Your task to perform on an android device: turn off smart reply in the gmail app Image 0: 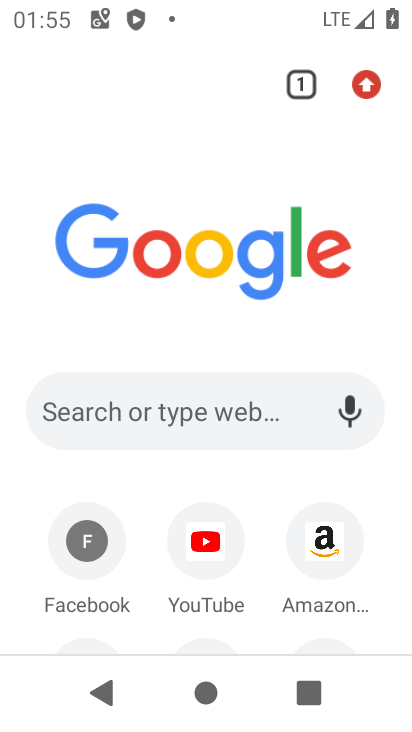
Step 0: press home button
Your task to perform on an android device: turn off smart reply in the gmail app Image 1: 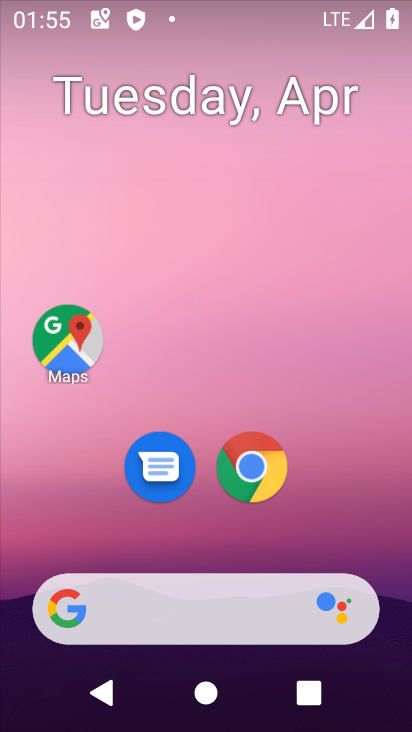
Step 1: drag from (390, 556) to (372, 265)
Your task to perform on an android device: turn off smart reply in the gmail app Image 2: 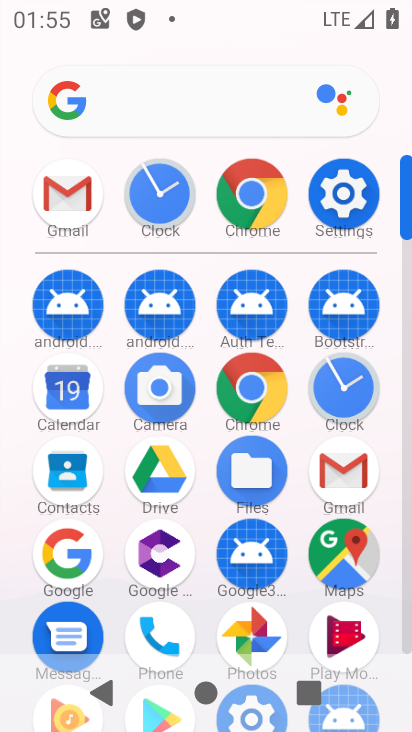
Step 2: click (349, 477)
Your task to perform on an android device: turn off smart reply in the gmail app Image 3: 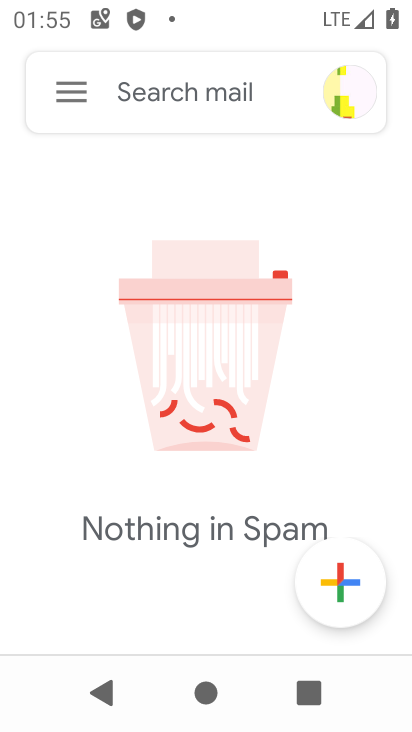
Step 3: click (69, 87)
Your task to perform on an android device: turn off smart reply in the gmail app Image 4: 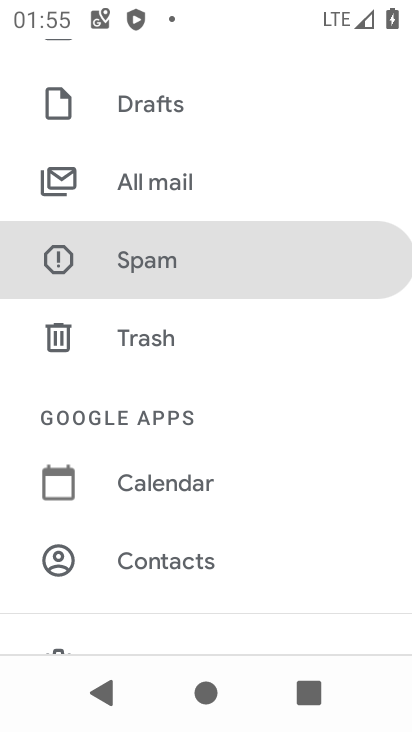
Step 4: drag from (292, 537) to (318, 229)
Your task to perform on an android device: turn off smart reply in the gmail app Image 5: 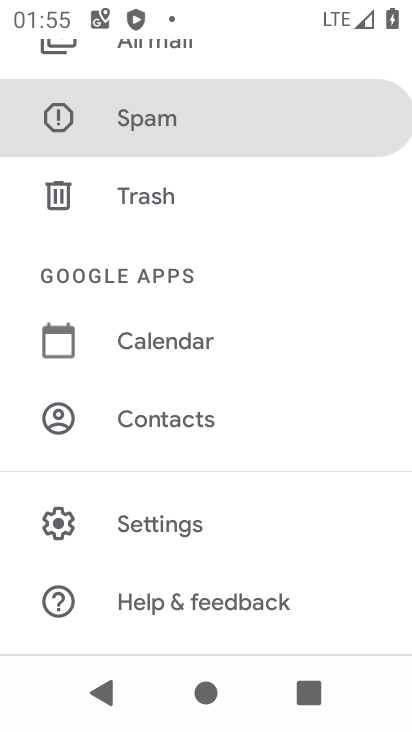
Step 5: click (186, 531)
Your task to perform on an android device: turn off smart reply in the gmail app Image 6: 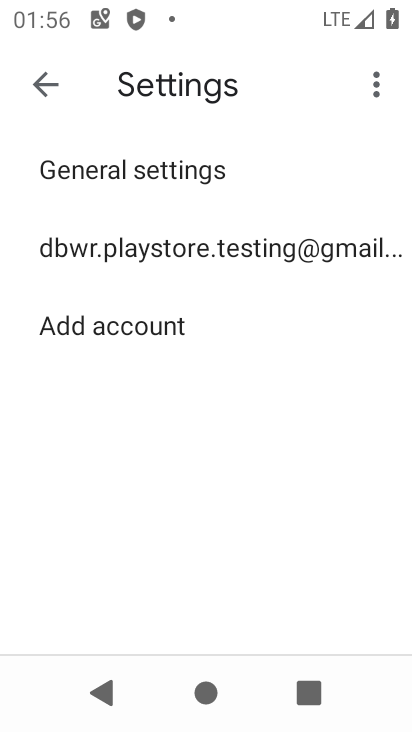
Step 6: click (219, 246)
Your task to perform on an android device: turn off smart reply in the gmail app Image 7: 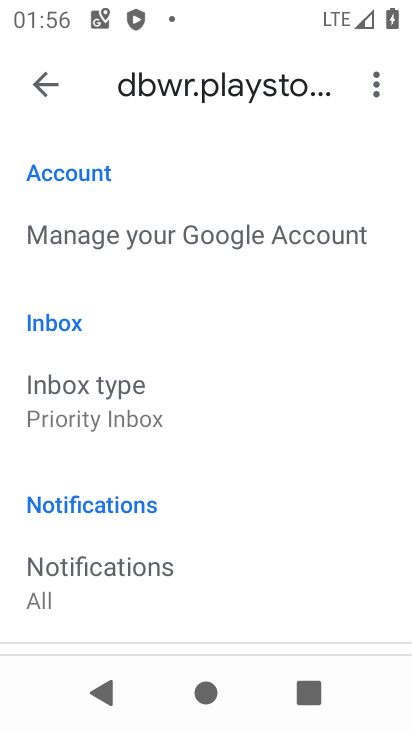
Step 7: drag from (316, 519) to (314, 332)
Your task to perform on an android device: turn off smart reply in the gmail app Image 8: 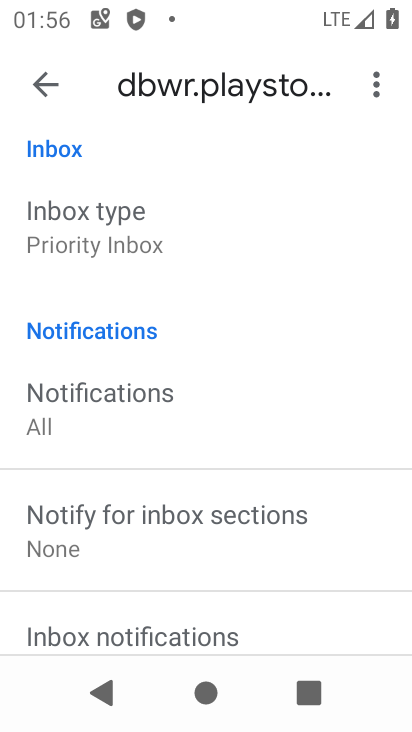
Step 8: drag from (332, 527) to (316, 338)
Your task to perform on an android device: turn off smart reply in the gmail app Image 9: 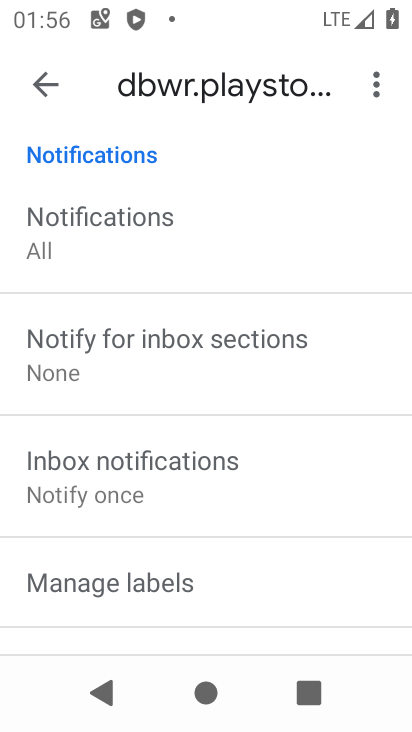
Step 9: drag from (319, 537) to (311, 326)
Your task to perform on an android device: turn off smart reply in the gmail app Image 10: 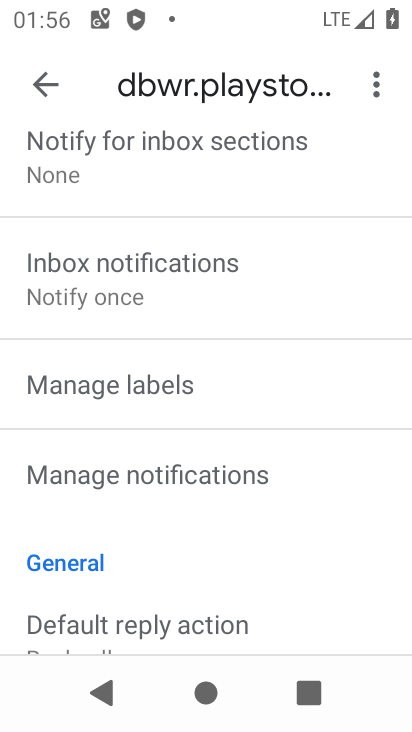
Step 10: drag from (345, 563) to (340, 276)
Your task to perform on an android device: turn off smart reply in the gmail app Image 11: 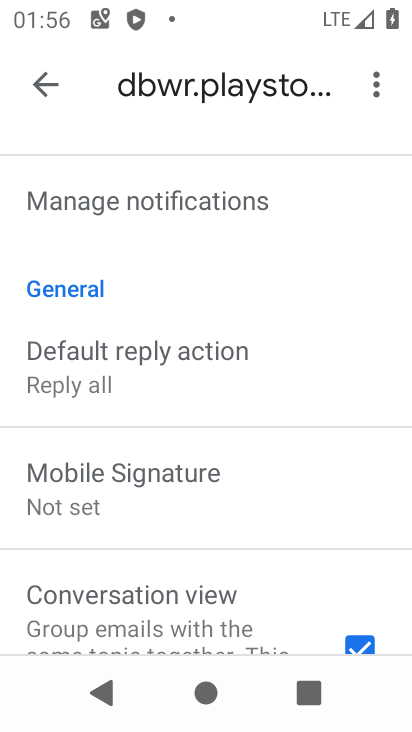
Step 11: drag from (318, 542) to (323, 301)
Your task to perform on an android device: turn off smart reply in the gmail app Image 12: 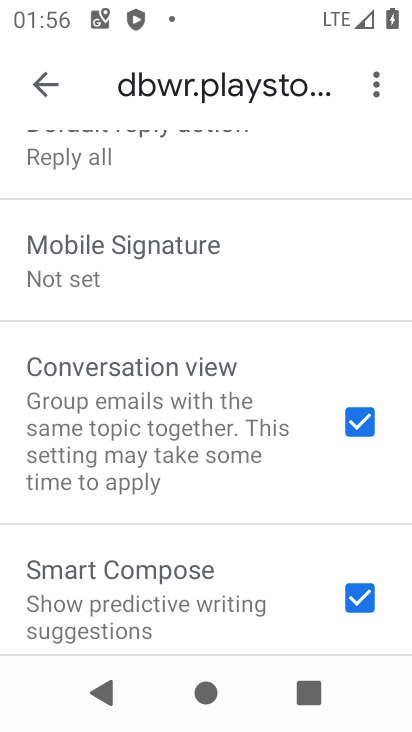
Step 12: drag from (294, 553) to (293, 315)
Your task to perform on an android device: turn off smart reply in the gmail app Image 13: 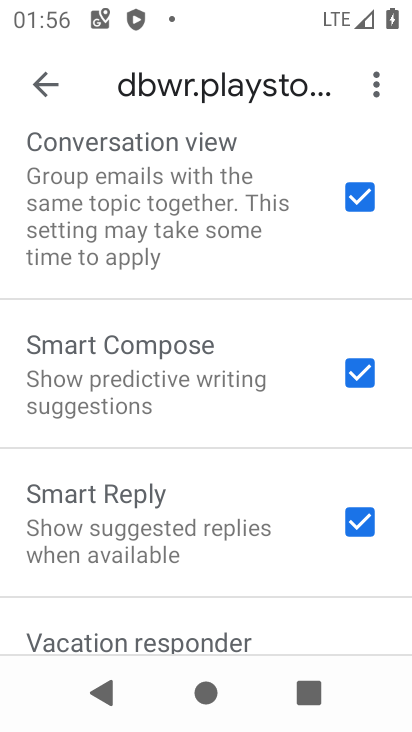
Step 13: click (357, 524)
Your task to perform on an android device: turn off smart reply in the gmail app Image 14: 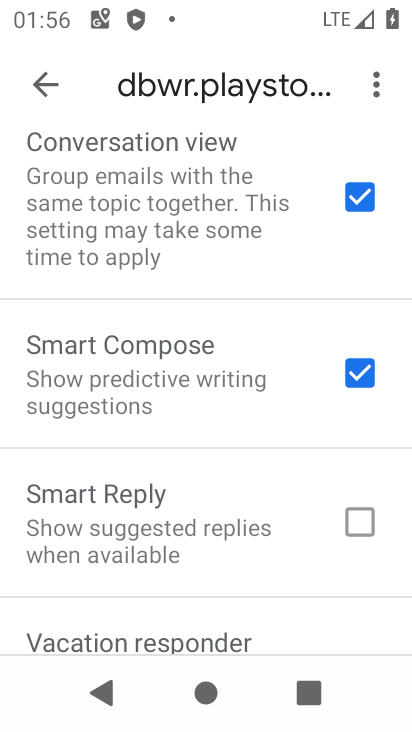
Step 14: task complete